Your task to perform on an android device: Open the stopwatch Image 0: 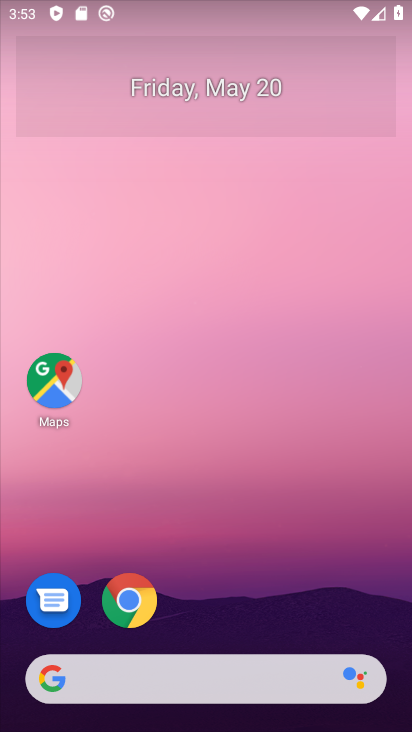
Step 0: drag from (247, 565) to (265, 113)
Your task to perform on an android device: Open the stopwatch Image 1: 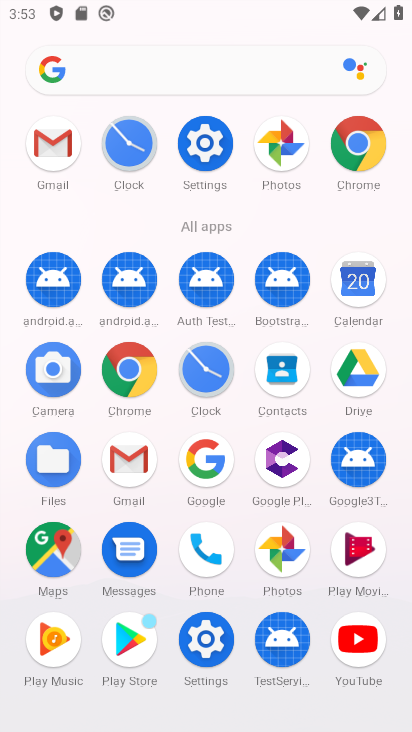
Step 1: click (139, 141)
Your task to perform on an android device: Open the stopwatch Image 2: 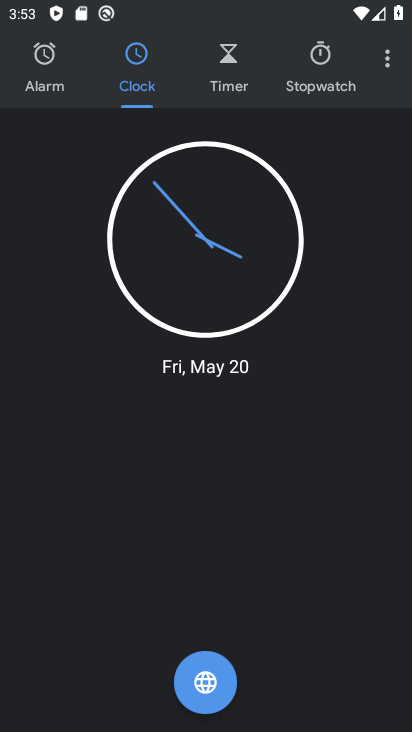
Step 2: click (315, 66)
Your task to perform on an android device: Open the stopwatch Image 3: 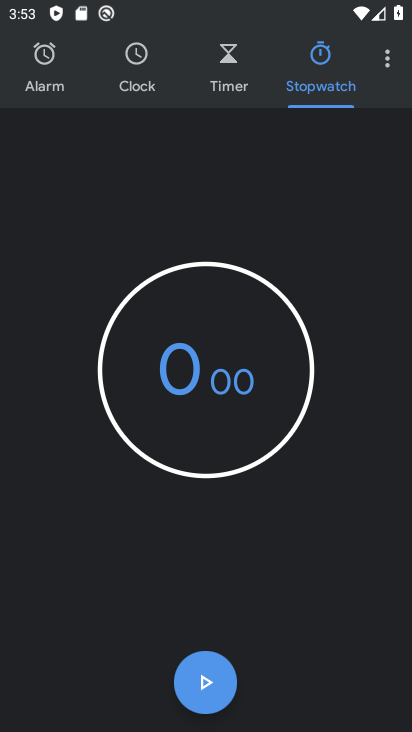
Step 3: task complete